Your task to perform on an android device: Look up the best rated book on Goodreads Image 0: 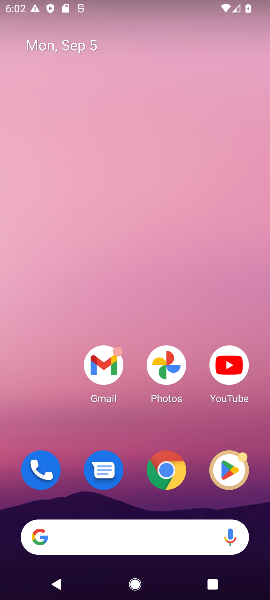
Step 0: click (102, 541)
Your task to perform on an android device: Look up the best rated book on Goodreads Image 1: 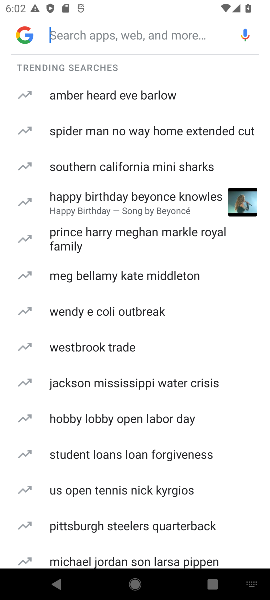
Step 1: type "goodreads"
Your task to perform on an android device: Look up the best rated book on Goodreads Image 2: 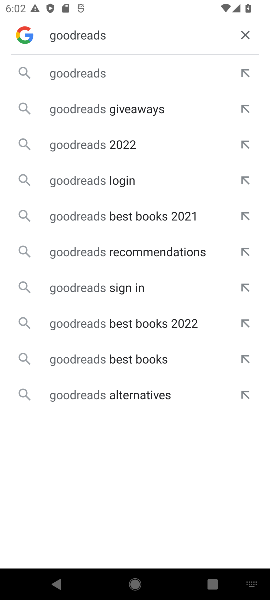
Step 2: click (77, 73)
Your task to perform on an android device: Look up the best rated book on Goodreads Image 3: 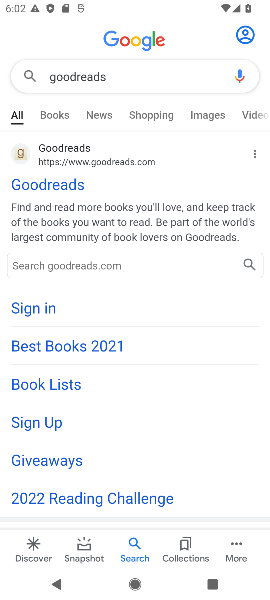
Step 3: click (38, 181)
Your task to perform on an android device: Look up the best rated book on Goodreads Image 4: 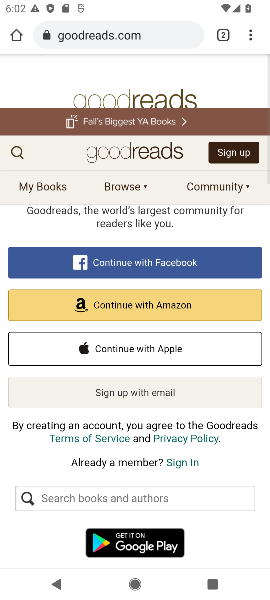
Step 4: click (12, 154)
Your task to perform on an android device: Look up the best rated book on Goodreads Image 5: 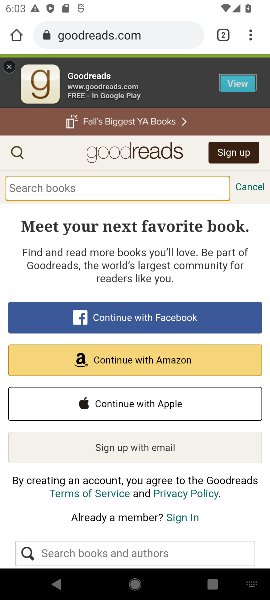
Step 5: type "best rated book"
Your task to perform on an android device: Look up the best rated book on Goodreads Image 6: 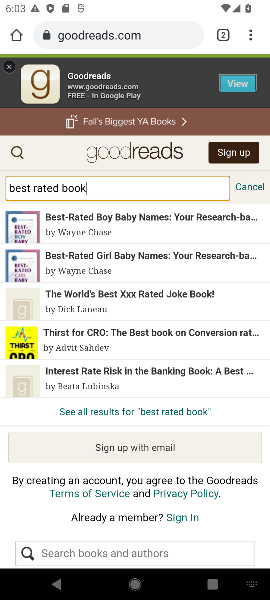
Step 6: click (119, 408)
Your task to perform on an android device: Look up the best rated book on Goodreads Image 7: 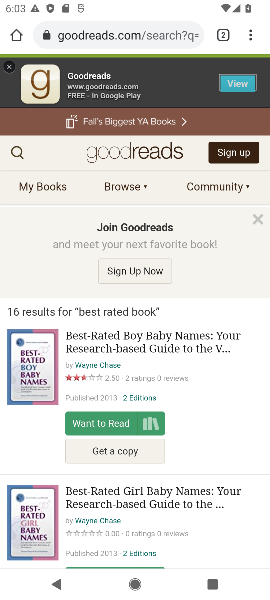
Step 7: task complete